Your task to perform on an android device: set an alarm Image 0: 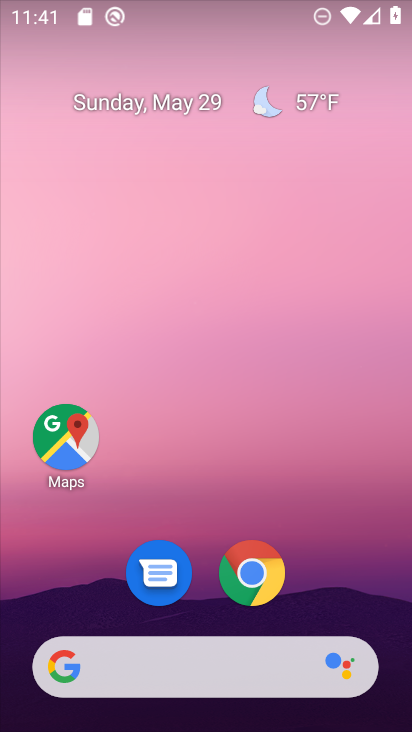
Step 0: drag from (300, 620) to (321, 41)
Your task to perform on an android device: set an alarm Image 1: 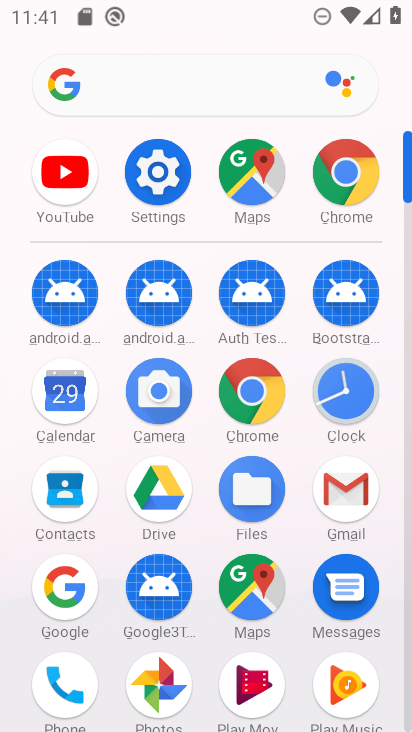
Step 1: click (348, 417)
Your task to perform on an android device: set an alarm Image 2: 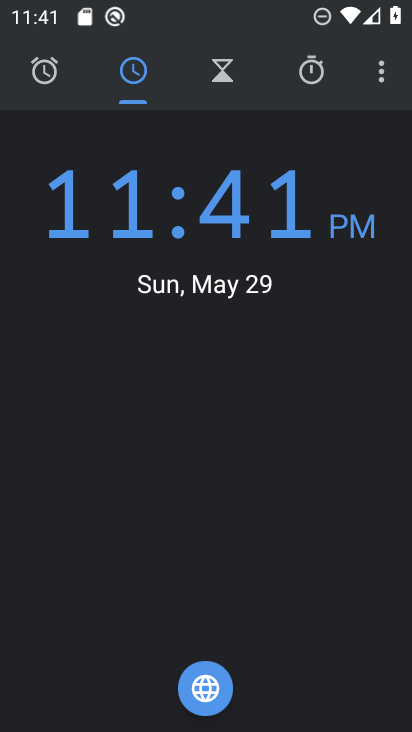
Step 2: click (46, 81)
Your task to perform on an android device: set an alarm Image 3: 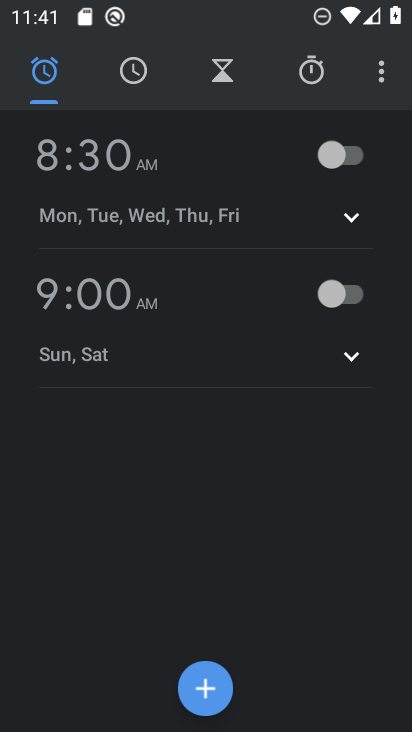
Step 3: click (215, 690)
Your task to perform on an android device: set an alarm Image 4: 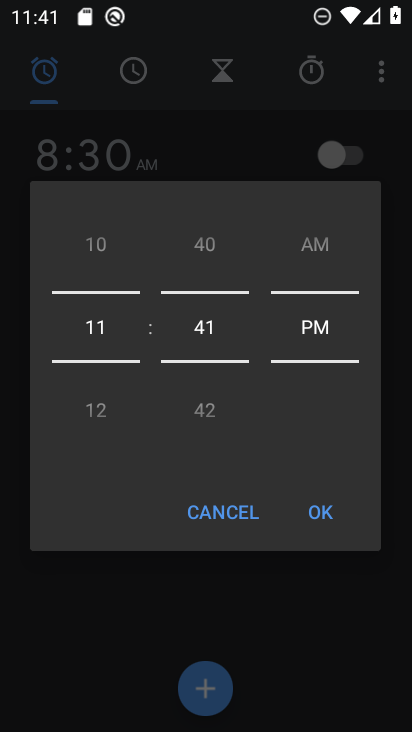
Step 4: click (313, 509)
Your task to perform on an android device: set an alarm Image 5: 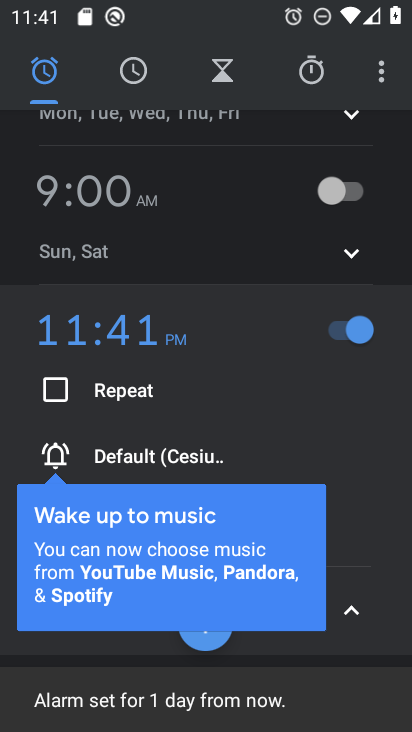
Step 5: task complete